Your task to perform on an android device: turn off smart reply in the gmail app Image 0: 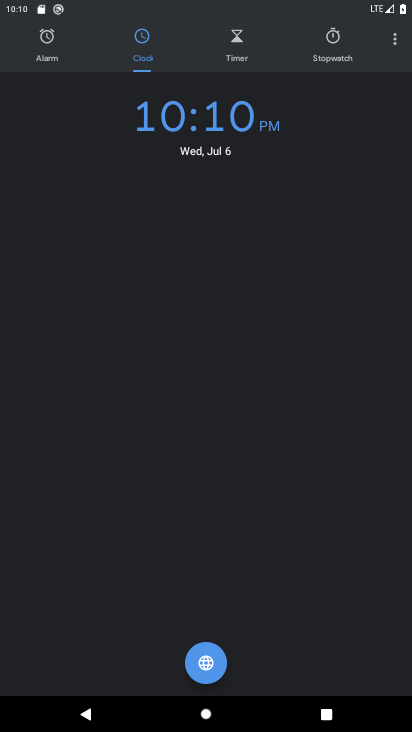
Step 0: press home button
Your task to perform on an android device: turn off smart reply in the gmail app Image 1: 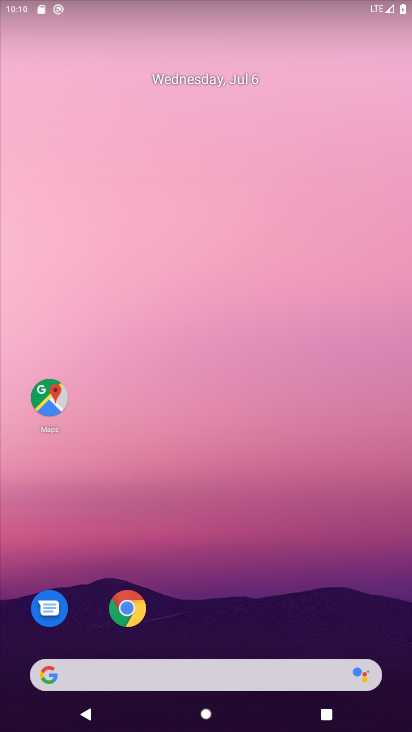
Step 1: drag from (237, 588) to (201, 7)
Your task to perform on an android device: turn off smart reply in the gmail app Image 2: 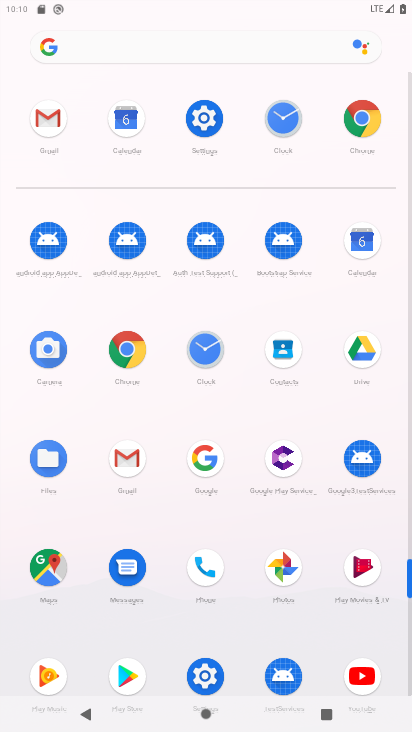
Step 2: click (133, 448)
Your task to perform on an android device: turn off smart reply in the gmail app Image 3: 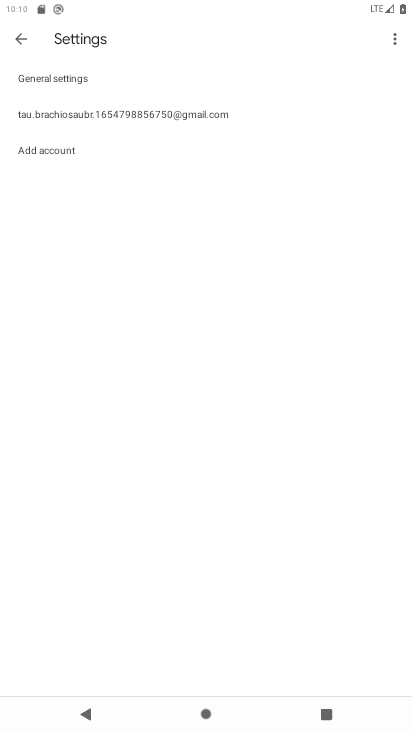
Step 3: click (133, 110)
Your task to perform on an android device: turn off smart reply in the gmail app Image 4: 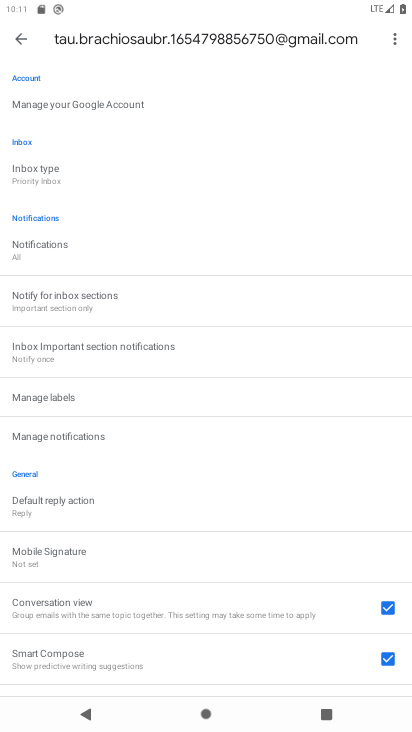
Step 4: drag from (118, 371) to (127, 307)
Your task to perform on an android device: turn off smart reply in the gmail app Image 5: 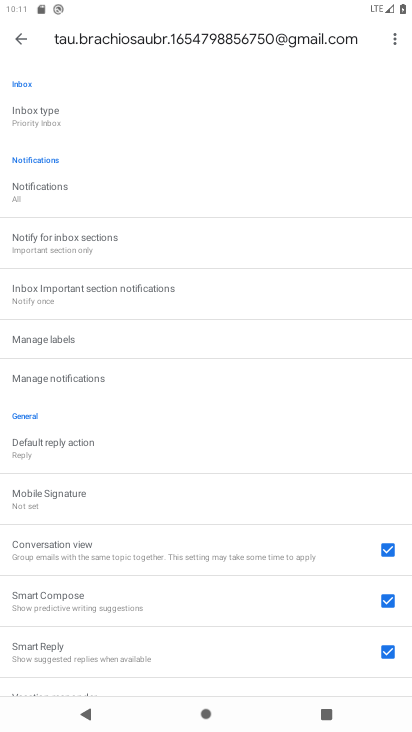
Step 5: click (383, 653)
Your task to perform on an android device: turn off smart reply in the gmail app Image 6: 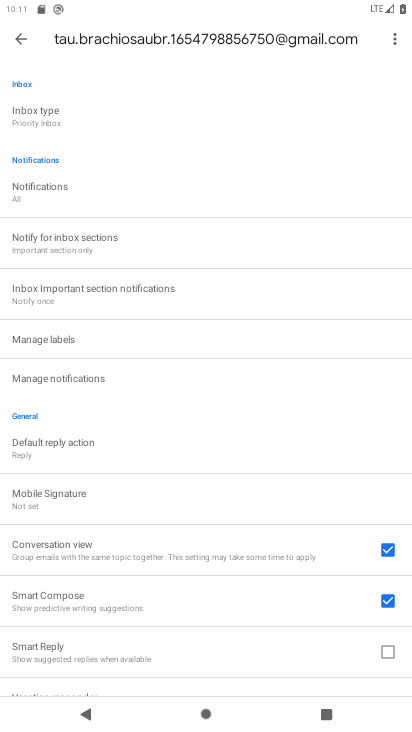
Step 6: task complete